Your task to perform on an android device: Is it going to rain tomorrow? Image 0: 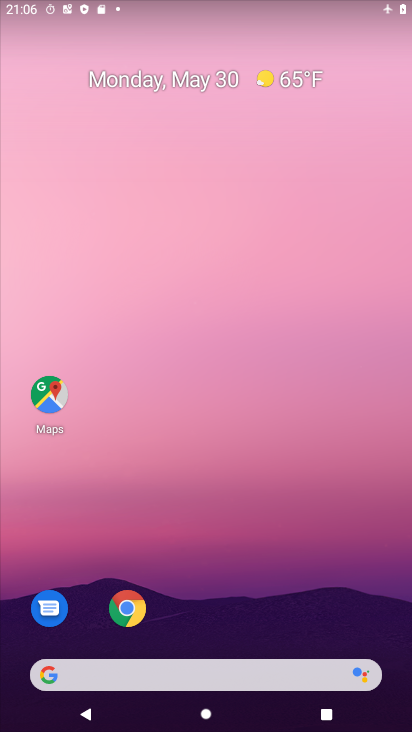
Step 0: drag from (219, 600) to (234, 179)
Your task to perform on an android device: Is it going to rain tomorrow? Image 1: 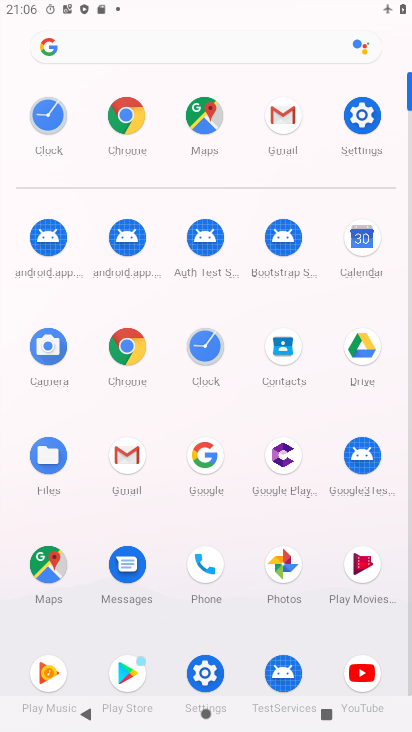
Step 1: click (191, 463)
Your task to perform on an android device: Is it going to rain tomorrow? Image 2: 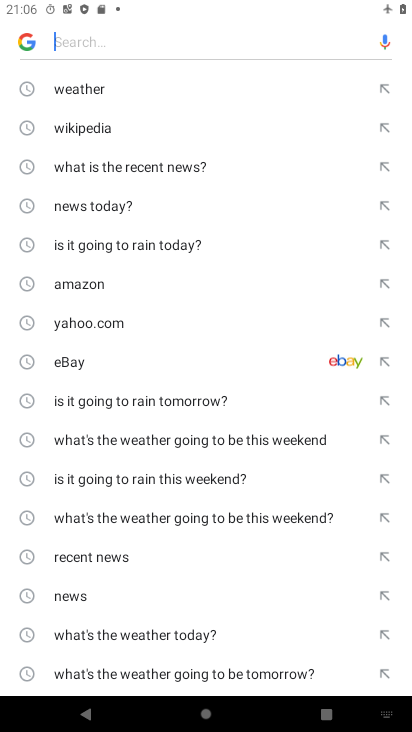
Step 2: click (150, 101)
Your task to perform on an android device: Is it going to rain tomorrow? Image 3: 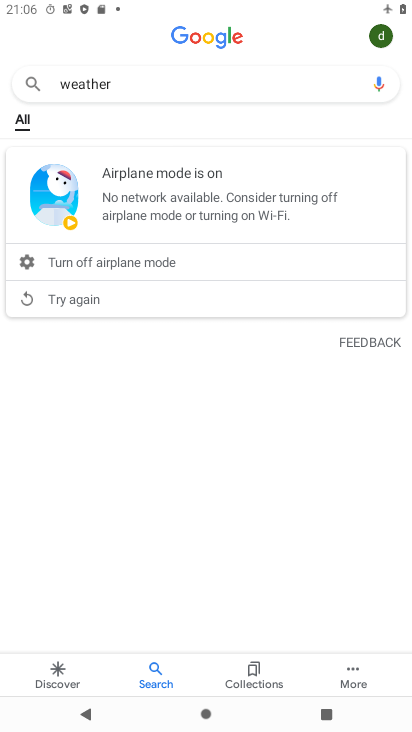
Step 3: task complete